Your task to perform on an android device: turn notification dots on Image 0: 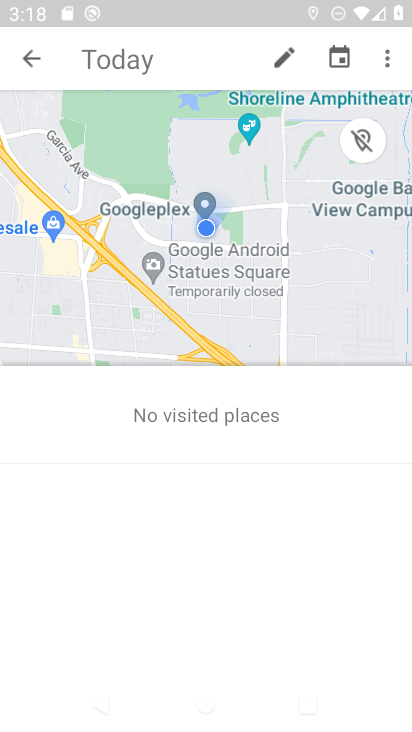
Step 0: press home button
Your task to perform on an android device: turn notification dots on Image 1: 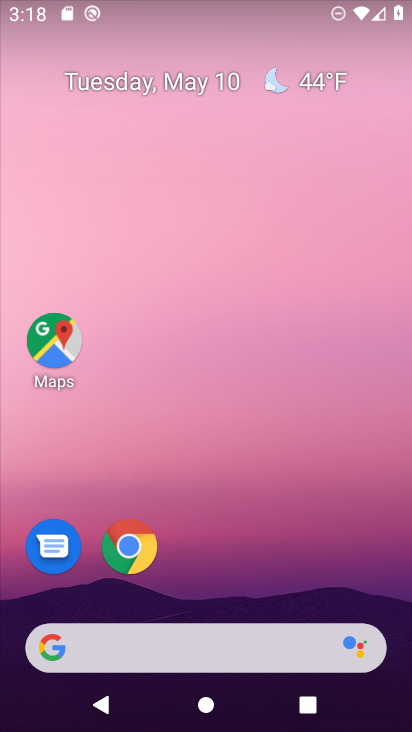
Step 1: drag from (262, 483) to (270, 99)
Your task to perform on an android device: turn notification dots on Image 2: 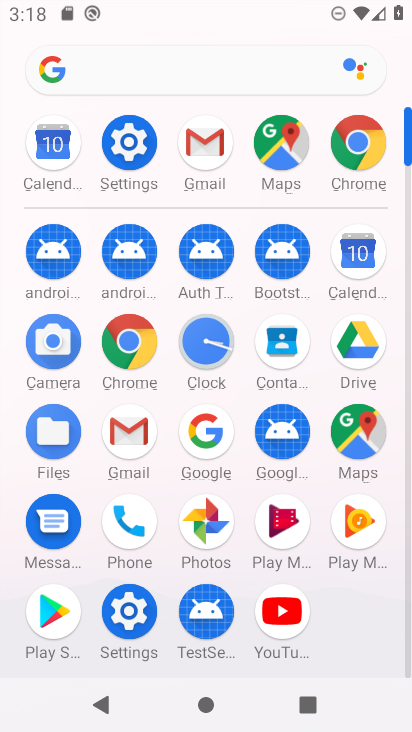
Step 2: click (124, 155)
Your task to perform on an android device: turn notification dots on Image 3: 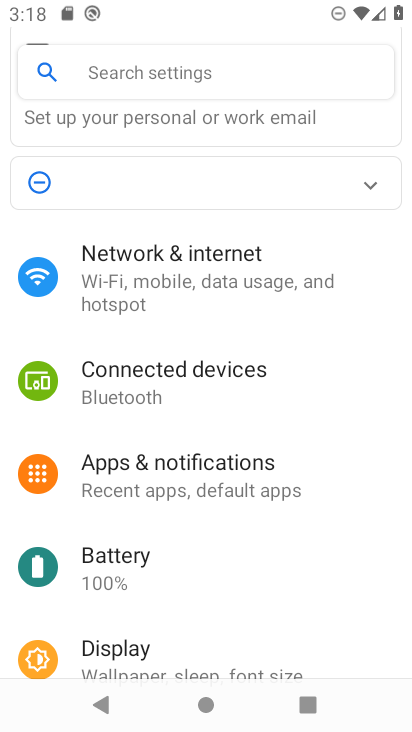
Step 3: click (208, 452)
Your task to perform on an android device: turn notification dots on Image 4: 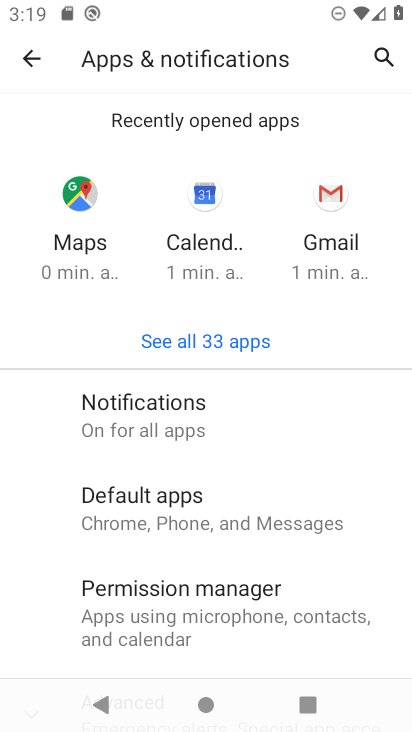
Step 4: click (178, 416)
Your task to perform on an android device: turn notification dots on Image 5: 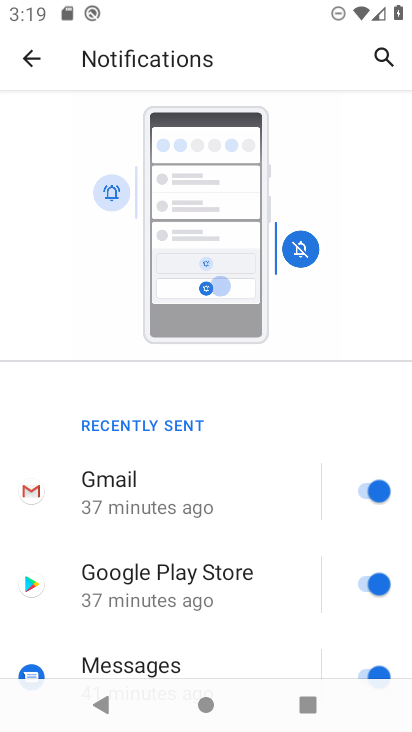
Step 5: drag from (301, 436) to (289, 68)
Your task to perform on an android device: turn notification dots on Image 6: 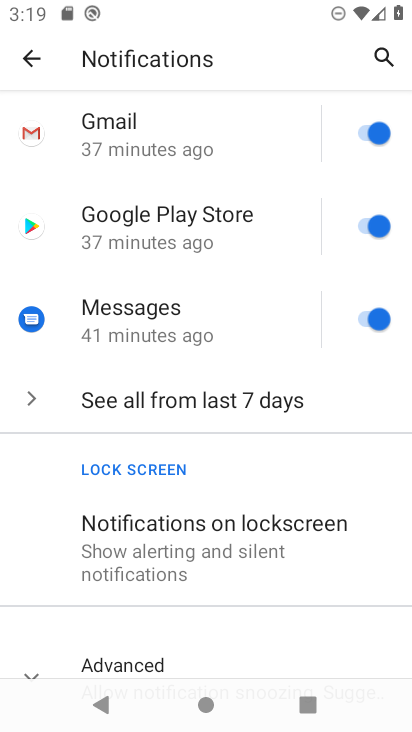
Step 6: drag from (297, 183) to (332, 19)
Your task to perform on an android device: turn notification dots on Image 7: 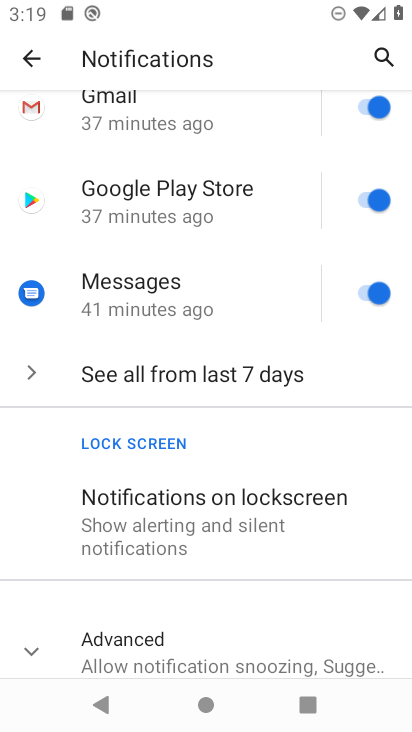
Step 7: click (24, 647)
Your task to perform on an android device: turn notification dots on Image 8: 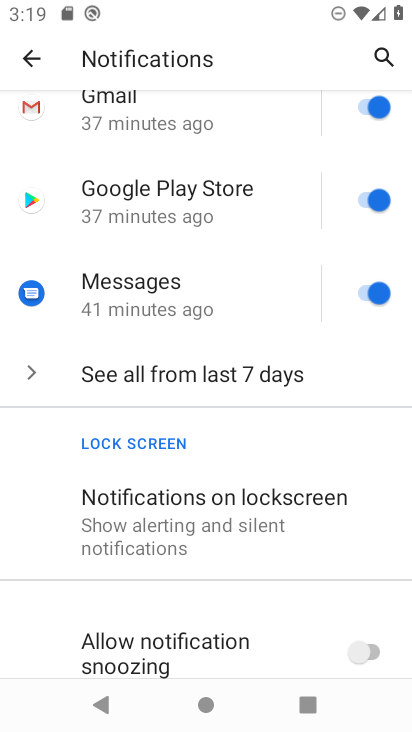
Step 8: drag from (245, 457) to (271, 135)
Your task to perform on an android device: turn notification dots on Image 9: 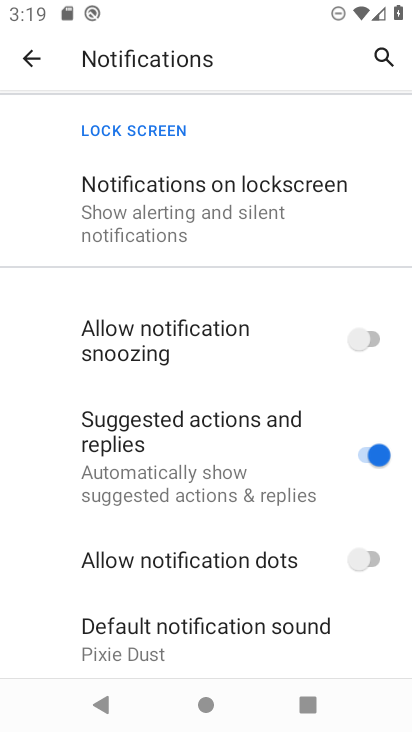
Step 9: click (368, 555)
Your task to perform on an android device: turn notification dots on Image 10: 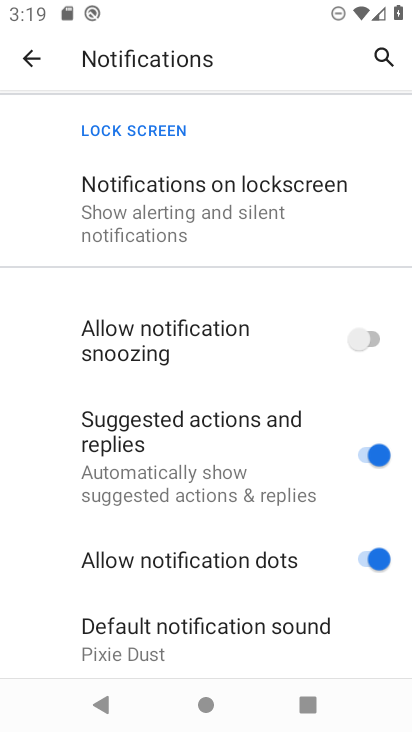
Step 10: task complete